Your task to perform on an android device: turn on data saver in the chrome app Image 0: 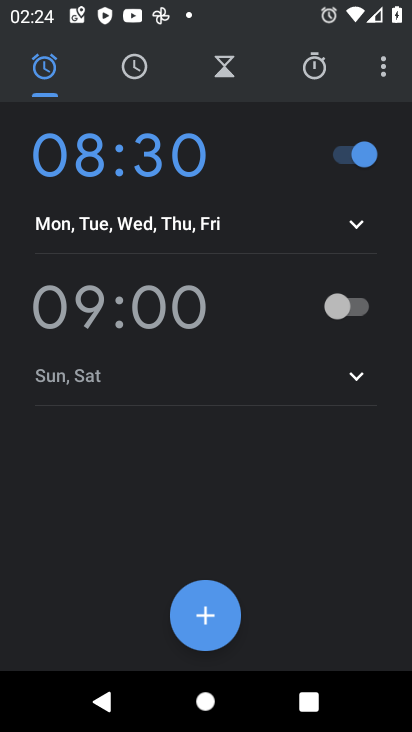
Step 0: press home button
Your task to perform on an android device: turn on data saver in the chrome app Image 1: 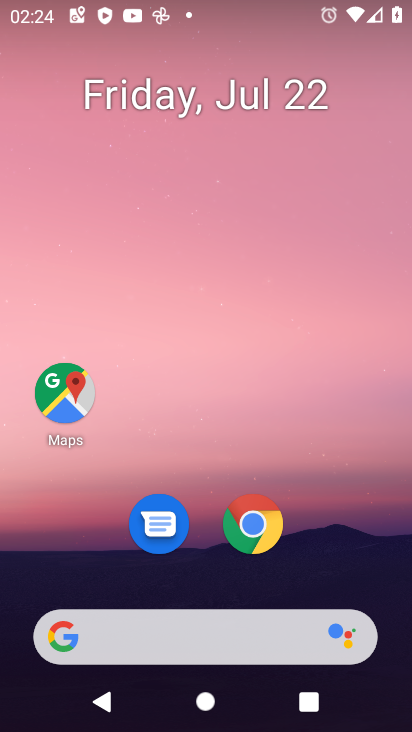
Step 1: click (248, 530)
Your task to perform on an android device: turn on data saver in the chrome app Image 2: 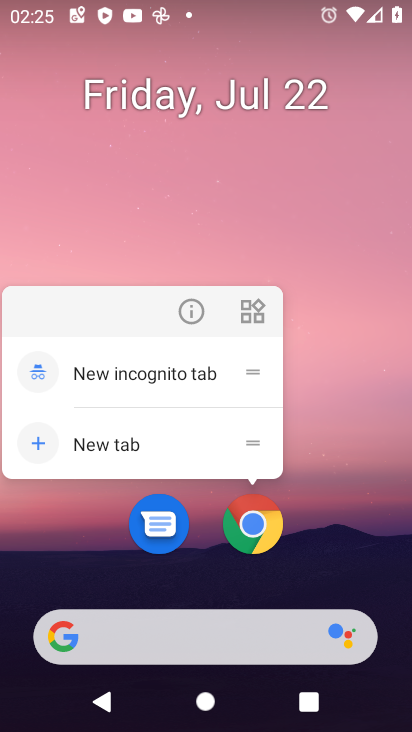
Step 2: click (251, 532)
Your task to perform on an android device: turn on data saver in the chrome app Image 3: 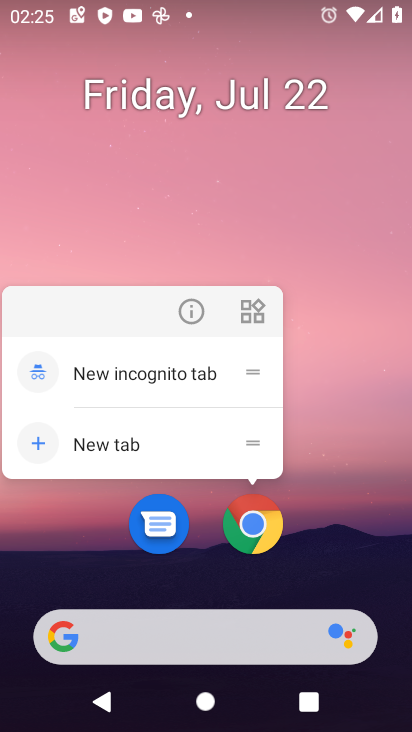
Step 3: click (257, 528)
Your task to perform on an android device: turn on data saver in the chrome app Image 4: 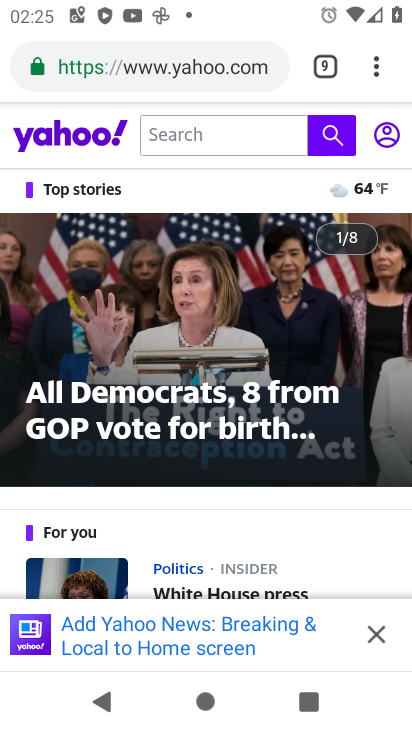
Step 4: drag from (372, 68) to (212, 536)
Your task to perform on an android device: turn on data saver in the chrome app Image 5: 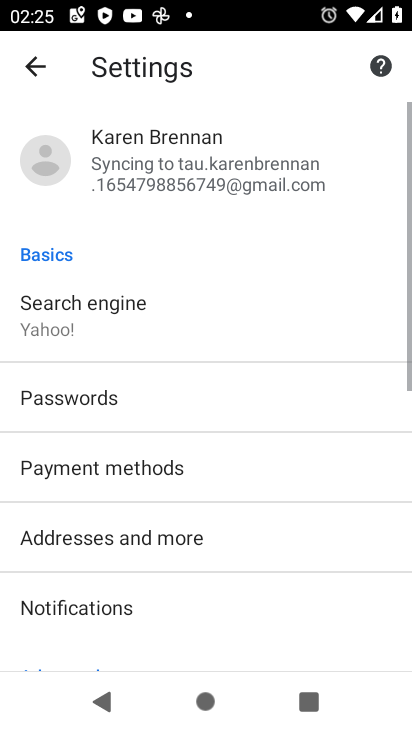
Step 5: drag from (169, 605) to (301, 157)
Your task to perform on an android device: turn on data saver in the chrome app Image 6: 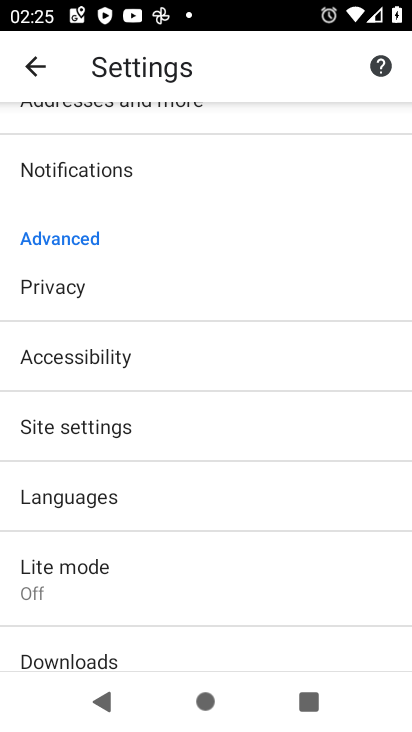
Step 6: click (114, 558)
Your task to perform on an android device: turn on data saver in the chrome app Image 7: 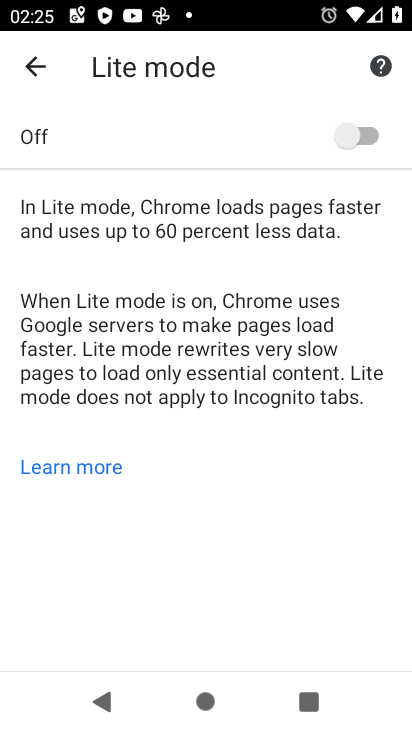
Step 7: click (366, 131)
Your task to perform on an android device: turn on data saver in the chrome app Image 8: 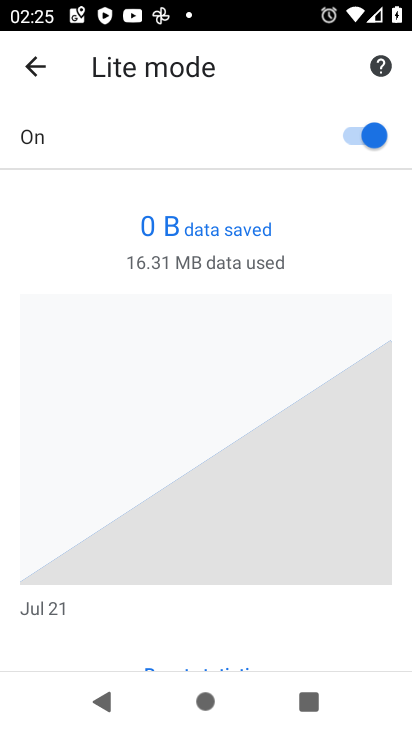
Step 8: task complete